Your task to perform on an android device: toggle notification dots Image 0: 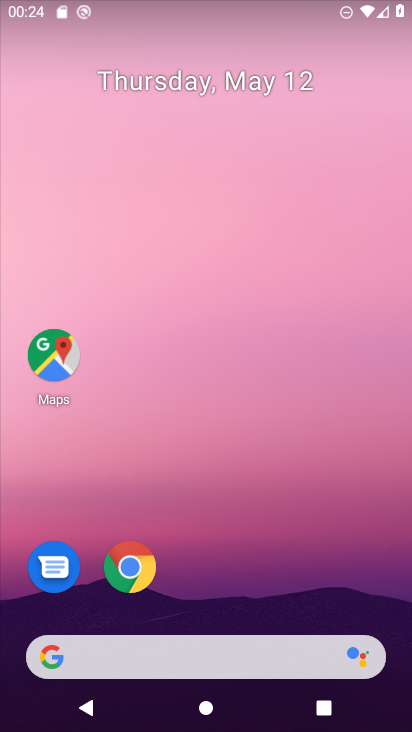
Step 0: drag from (260, 706) to (298, 124)
Your task to perform on an android device: toggle notification dots Image 1: 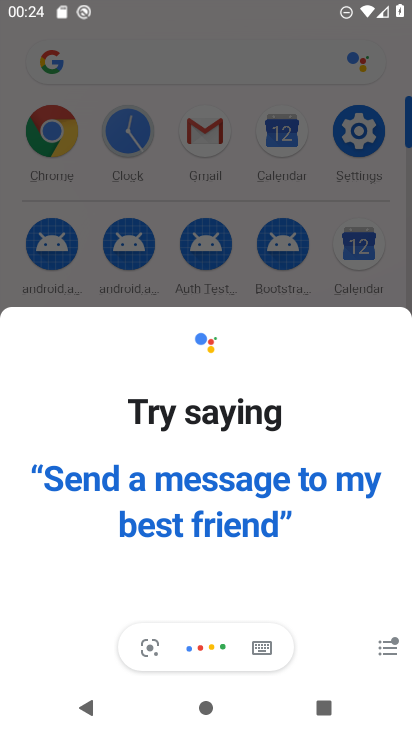
Step 1: press home button
Your task to perform on an android device: toggle notification dots Image 2: 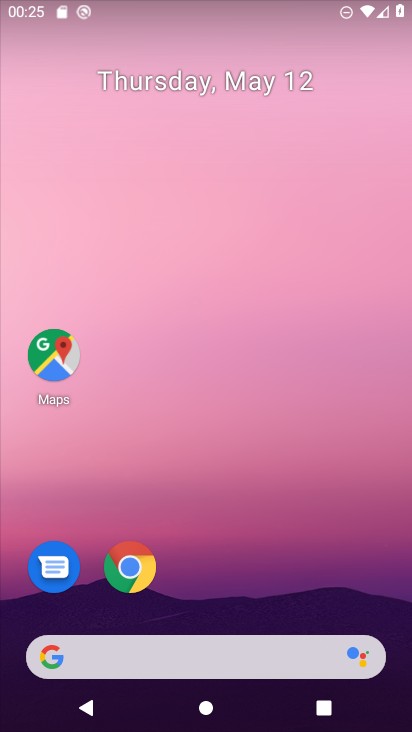
Step 2: drag from (257, 709) to (230, 6)
Your task to perform on an android device: toggle notification dots Image 3: 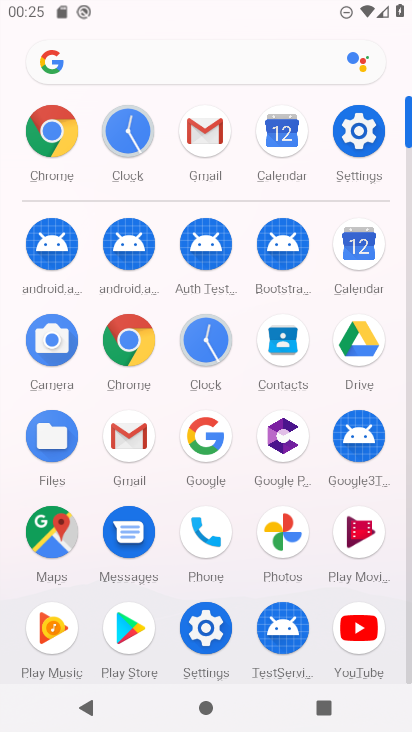
Step 3: click (362, 150)
Your task to perform on an android device: toggle notification dots Image 4: 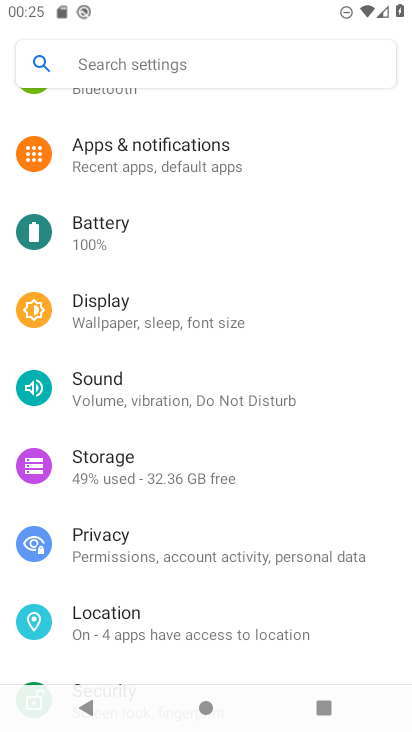
Step 4: click (196, 168)
Your task to perform on an android device: toggle notification dots Image 5: 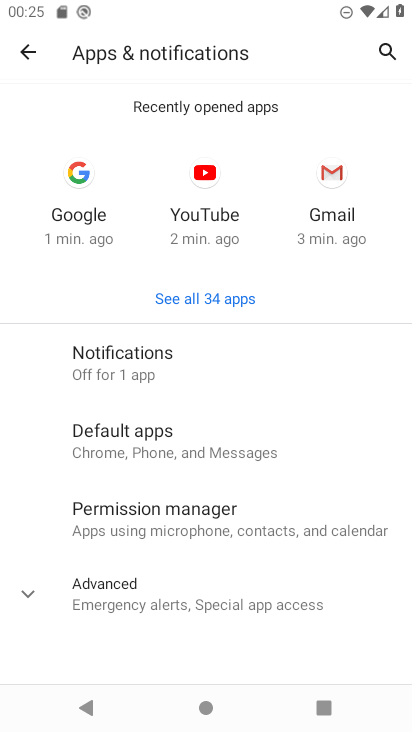
Step 5: click (179, 382)
Your task to perform on an android device: toggle notification dots Image 6: 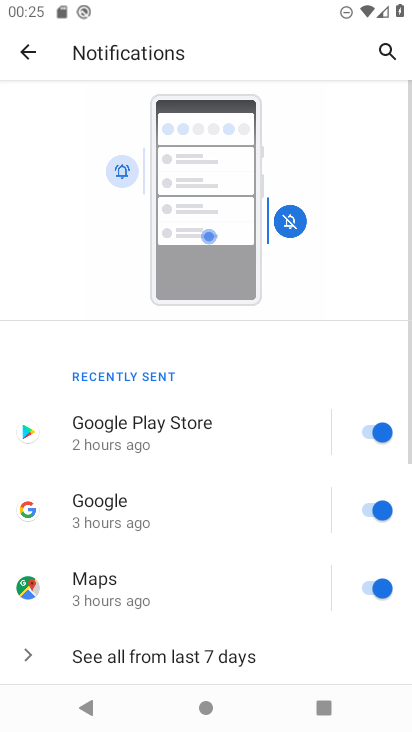
Step 6: drag from (283, 596) to (337, 13)
Your task to perform on an android device: toggle notification dots Image 7: 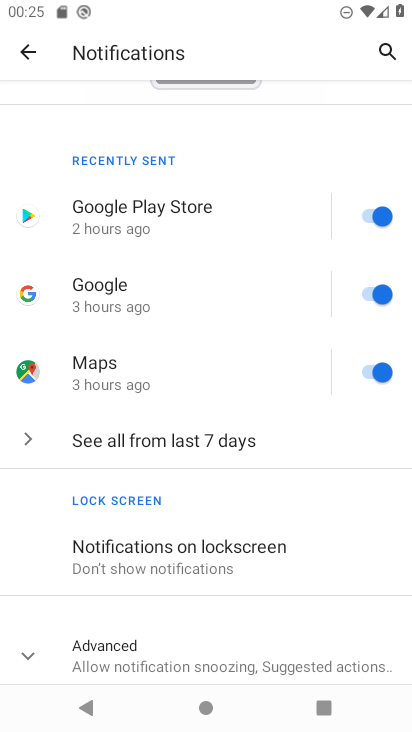
Step 7: click (269, 655)
Your task to perform on an android device: toggle notification dots Image 8: 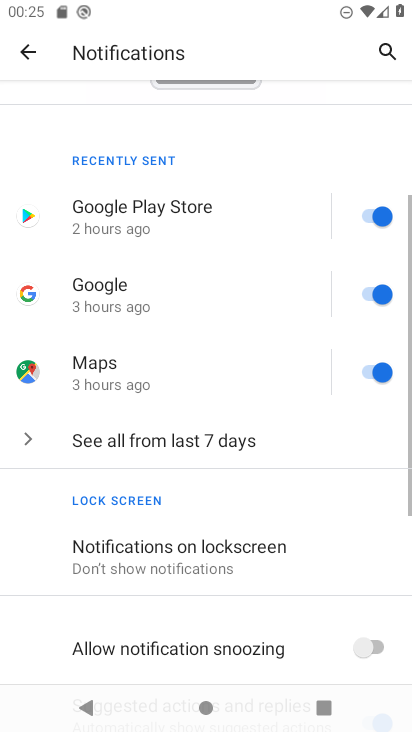
Step 8: drag from (271, 643) to (296, 11)
Your task to perform on an android device: toggle notification dots Image 9: 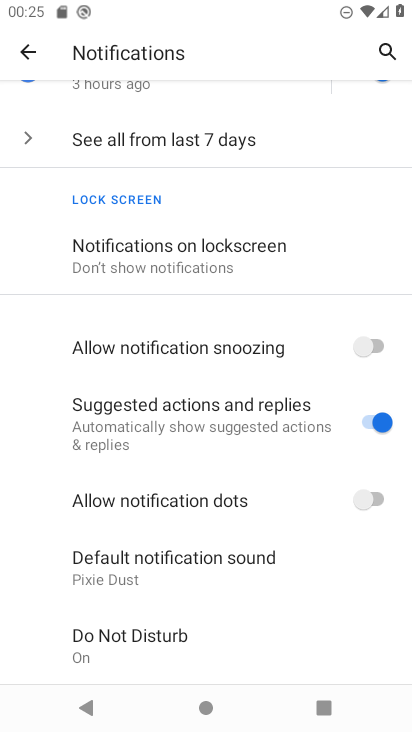
Step 9: click (367, 495)
Your task to perform on an android device: toggle notification dots Image 10: 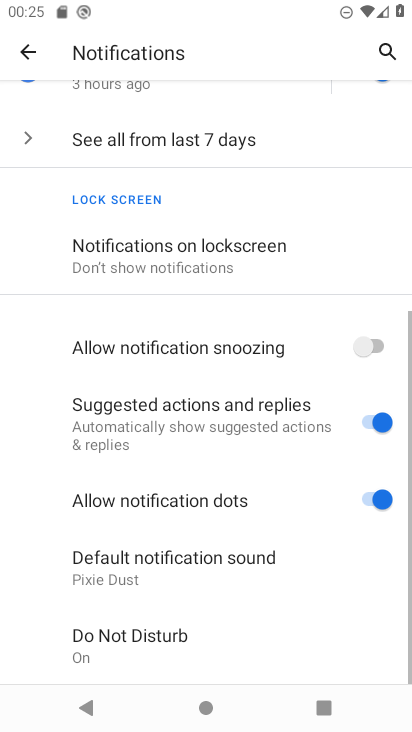
Step 10: task complete